Your task to perform on an android device: What's the weather going to be tomorrow? Image 0: 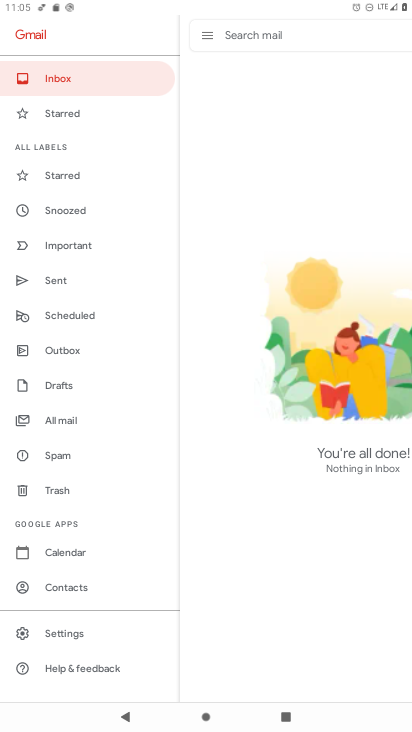
Step 0: press home button
Your task to perform on an android device: What's the weather going to be tomorrow? Image 1: 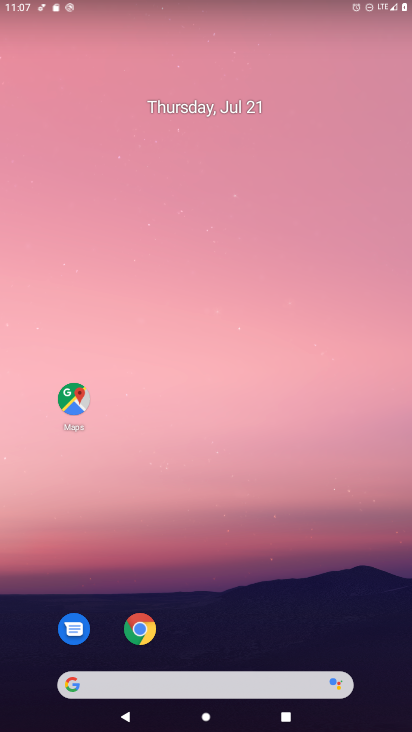
Step 1: drag from (290, 598) to (307, 727)
Your task to perform on an android device: What's the weather going to be tomorrow? Image 2: 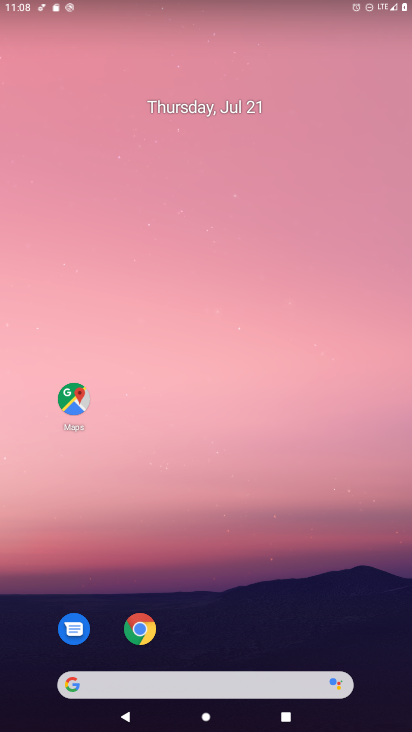
Step 2: drag from (91, 552) to (114, 185)
Your task to perform on an android device: What's the weather going to be tomorrow? Image 3: 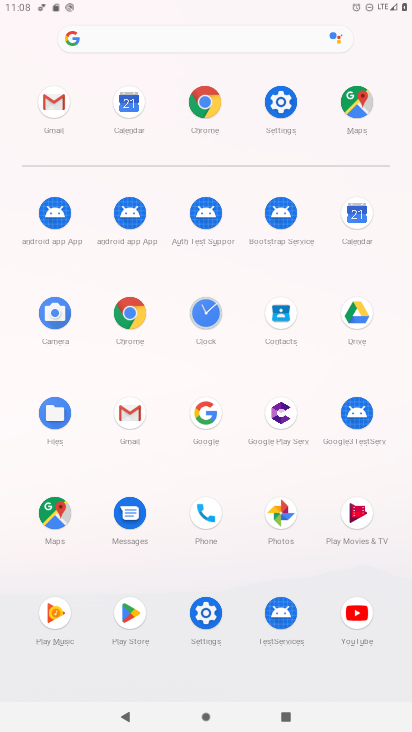
Step 3: click (126, 316)
Your task to perform on an android device: What's the weather going to be tomorrow? Image 4: 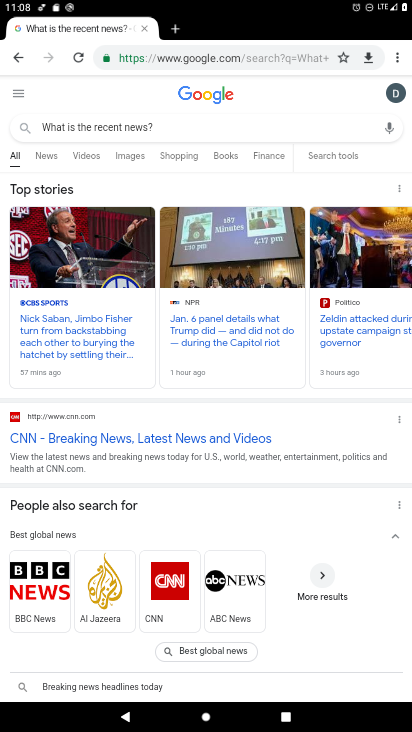
Step 4: click (151, 56)
Your task to perform on an android device: What's the weather going to be tomorrow? Image 5: 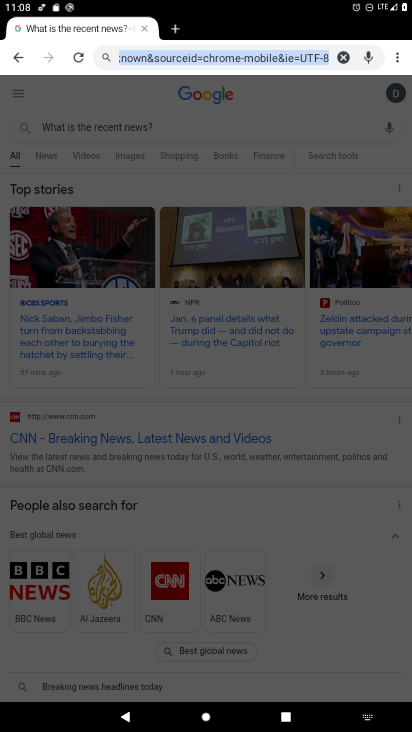
Step 5: click (170, 60)
Your task to perform on an android device: What's the weather going to be tomorrow? Image 6: 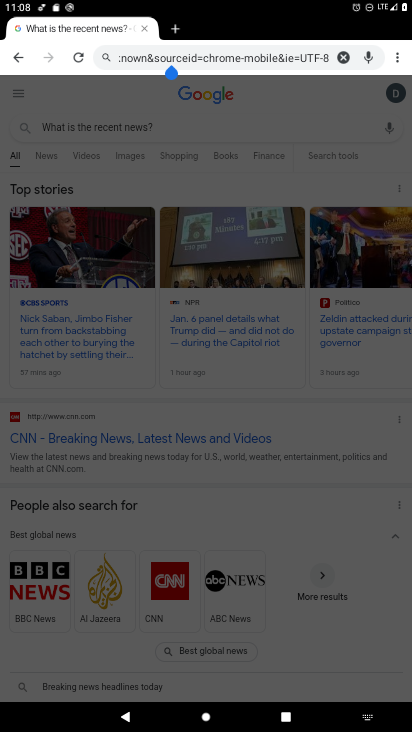
Step 6: type "What's the weather going to be tomorrow?"
Your task to perform on an android device: What's the weather going to be tomorrow? Image 7: 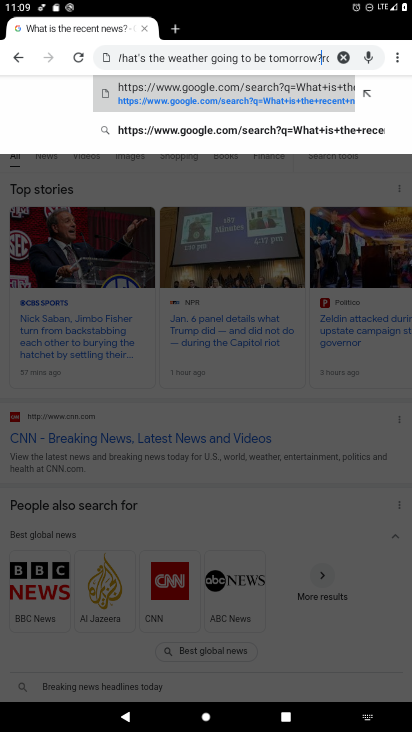
Step 7: type ""
Your task to perform on an android device: What's the weather going to be tomorrow? Image 8: 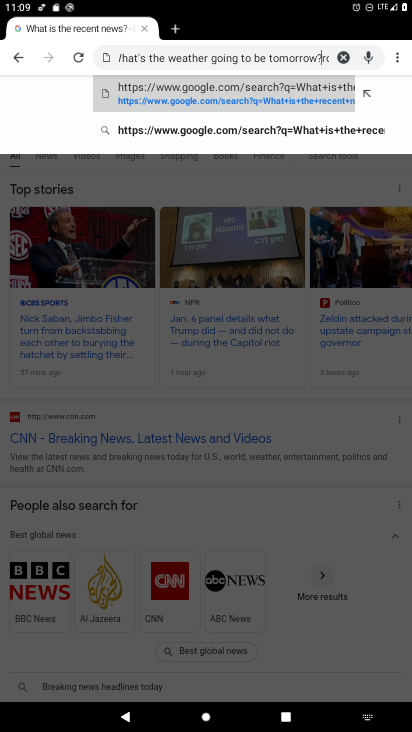
Step 8: click (212, 91)
Your task to perform on an android device: What's the weather going to be tomorrow? Image 9: 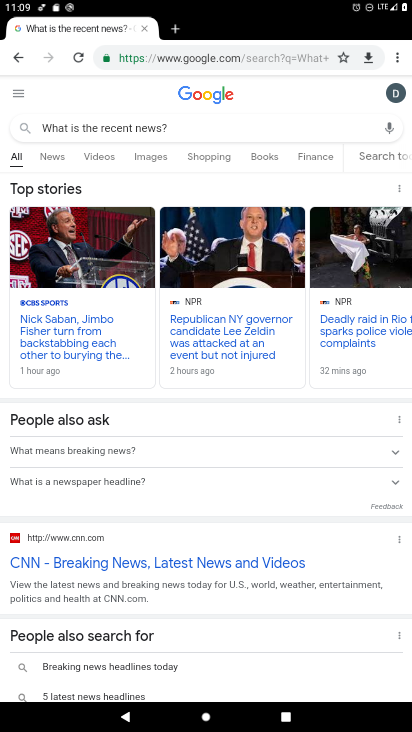
Step 9: click (230, 56)
Your task to perform on an android device: What's the weather going to be tomorrow? Image 10: 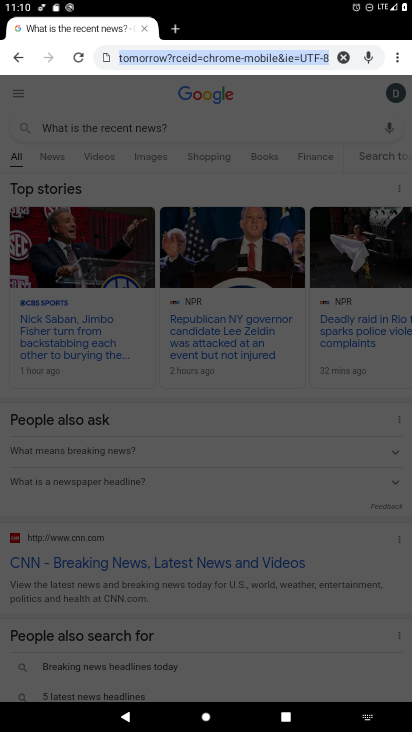
Step 10: type "What's the weather going to be tomorrow?"
Your task to perform on an android device: What's the weather going to be tomorrow? Image 11: 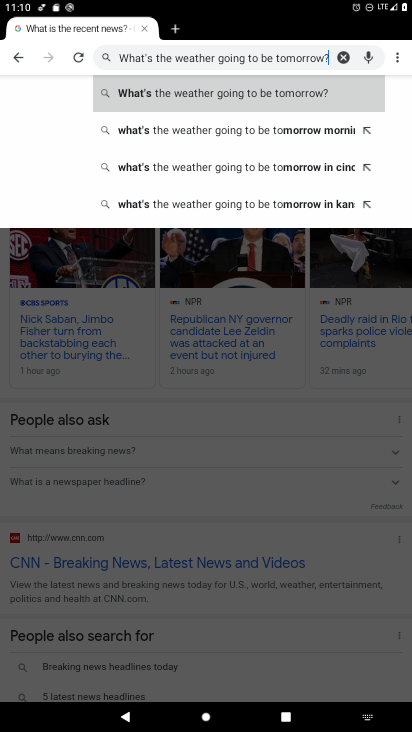
Step 11: click (172, 93)
Your task to perform on an android device: What's the weather going to be tomorrow? Image 12: 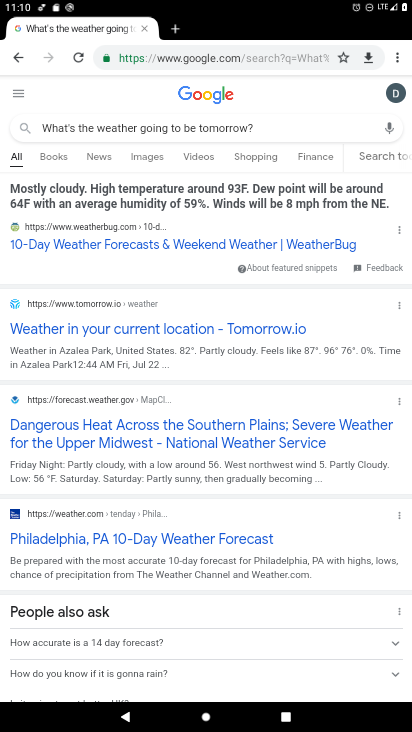
Step 12: task complete